Your task to perform on an android device: Open Google Maps and go to "Timeline" Image 0: 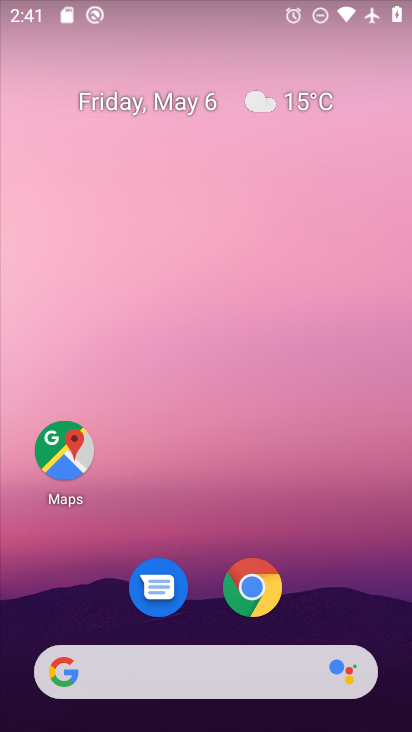
Step 0: click (76, 458)
Your task to perform on an android device: Open Google Maps and go to "Timeline" Image 1: 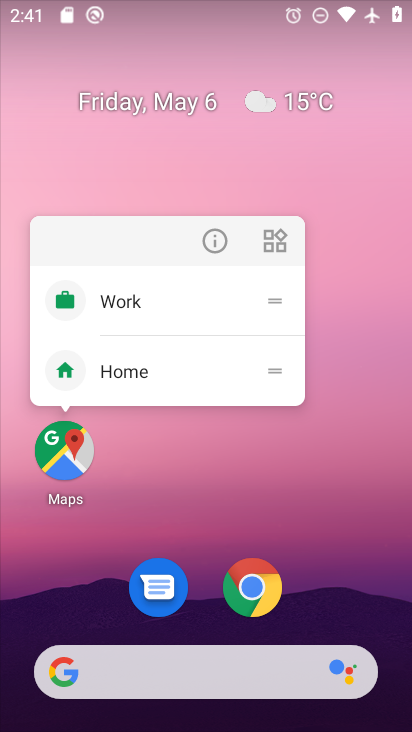
Step 1: click (55, 457)
Your task to perform on an android device: Open Google Maps and go to "Timeline" Image 2: 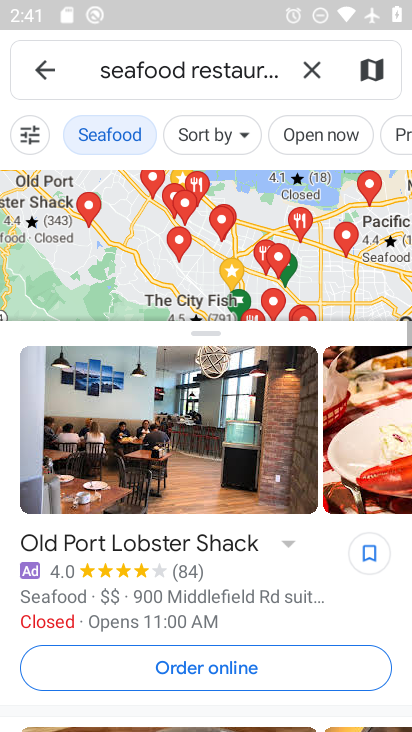
Step 2: click (302, 59)
Your task to perform on an android device: Open Google Maps and go to "Timeline" Image 3: 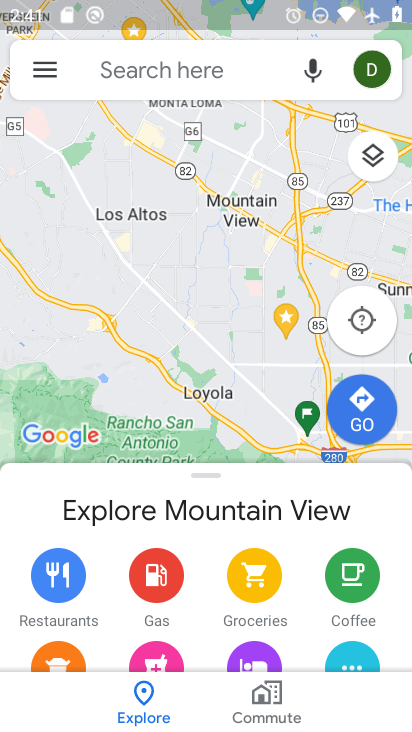
Step 3: click (44, 70)
Your task to perform on an android device: Open Google Maps and go to "Timeline" Image 4: 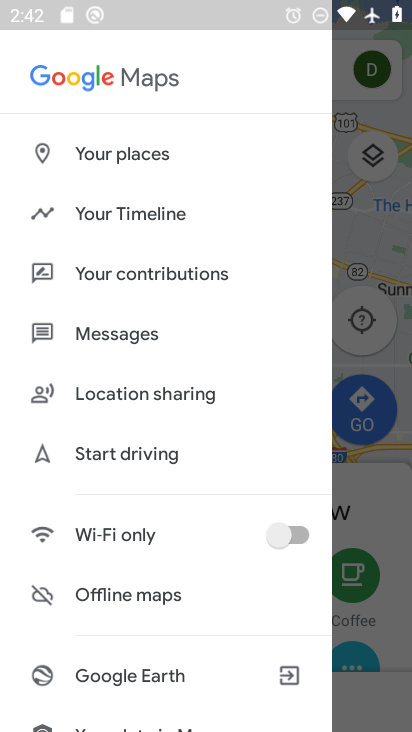
Step 4: click (132, 207)
Your task to perform on an android device: Open Google Maps and go to "Timeline" Image 5: 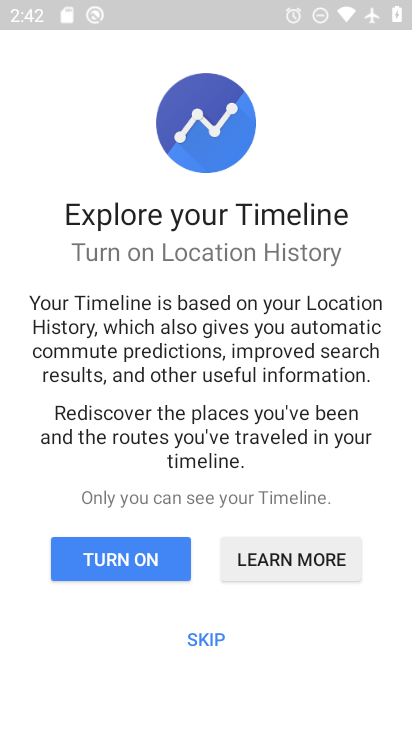
Step 5: click (207, 634)
Your task to perform on an android device: Open Google Maps and go to "Timeline" Image 6: 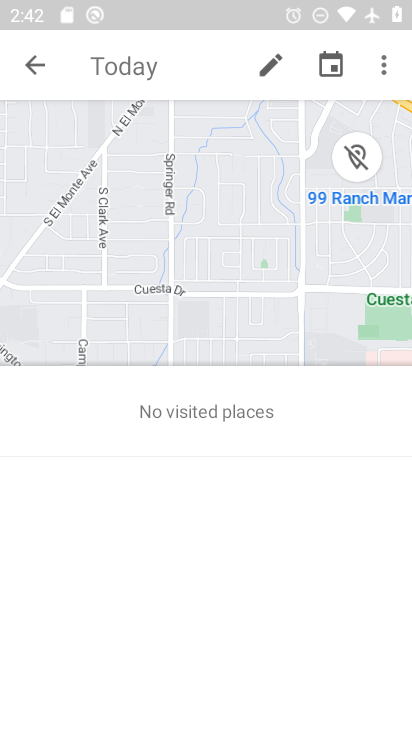
Step 6: task complete